Your task to perform on an android device: Search for flights from London to Paris Image 0: 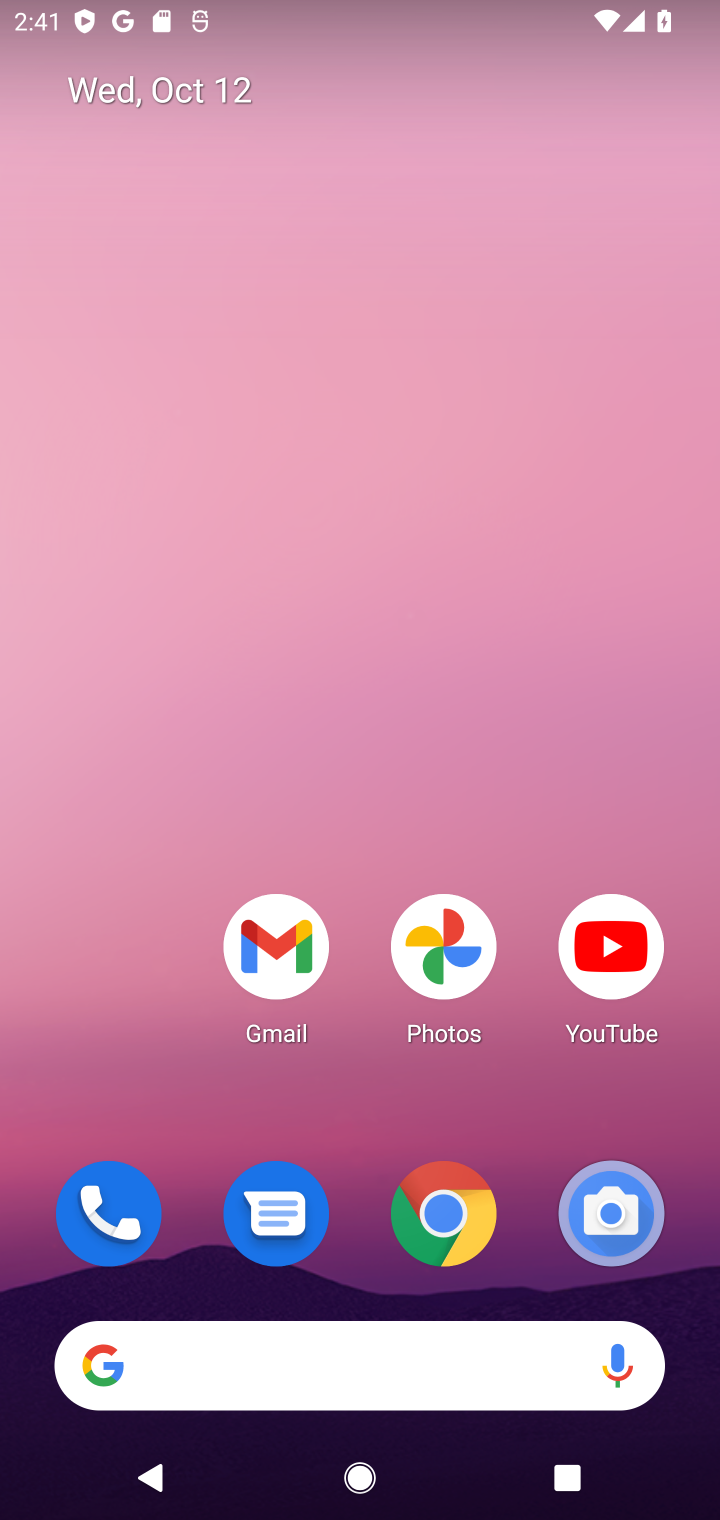
Step 0: click (365, 1367)
Your task to perform on an android device: Search for flights from London to Paris Image 1: 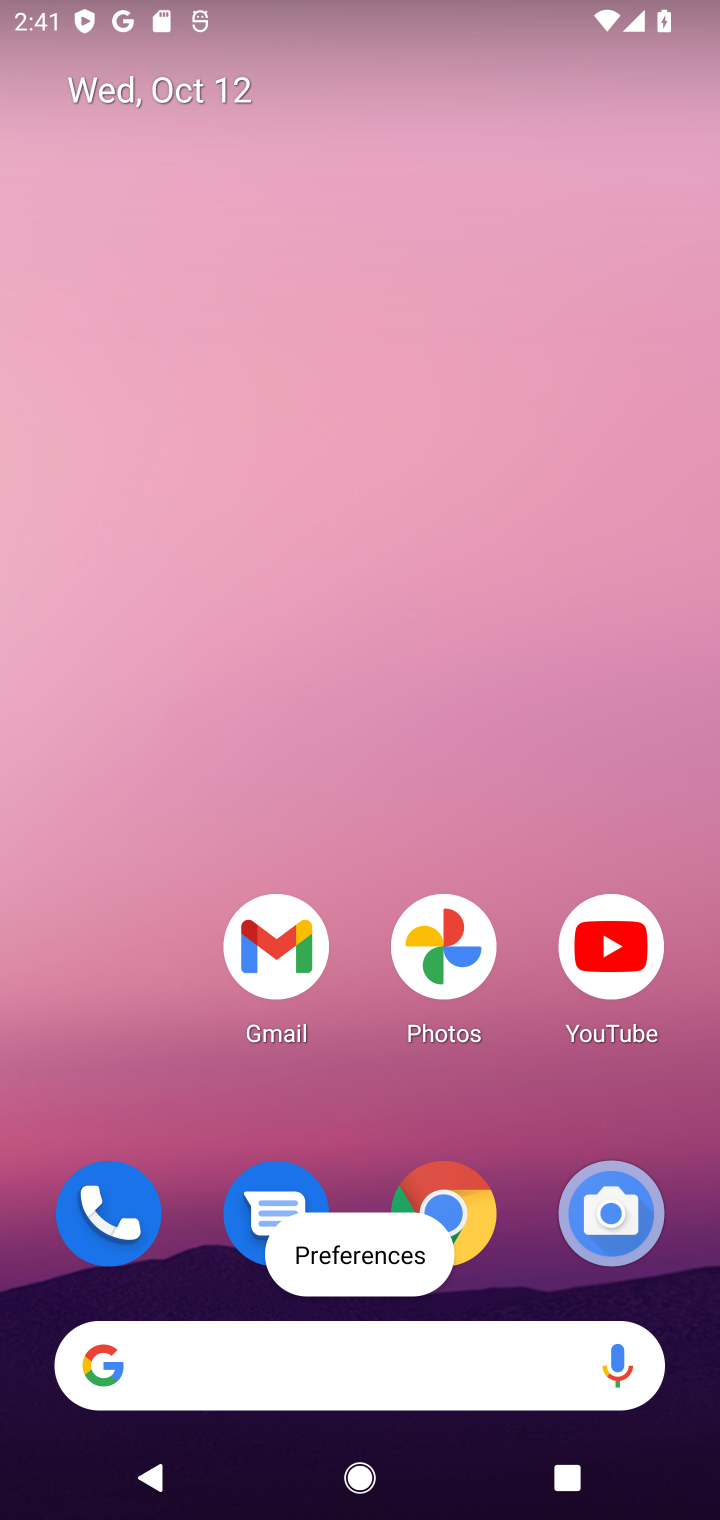
Step 1: click (288, 1340)
Your task to perform on an android device: Search for flights from London to Paris Image 2: 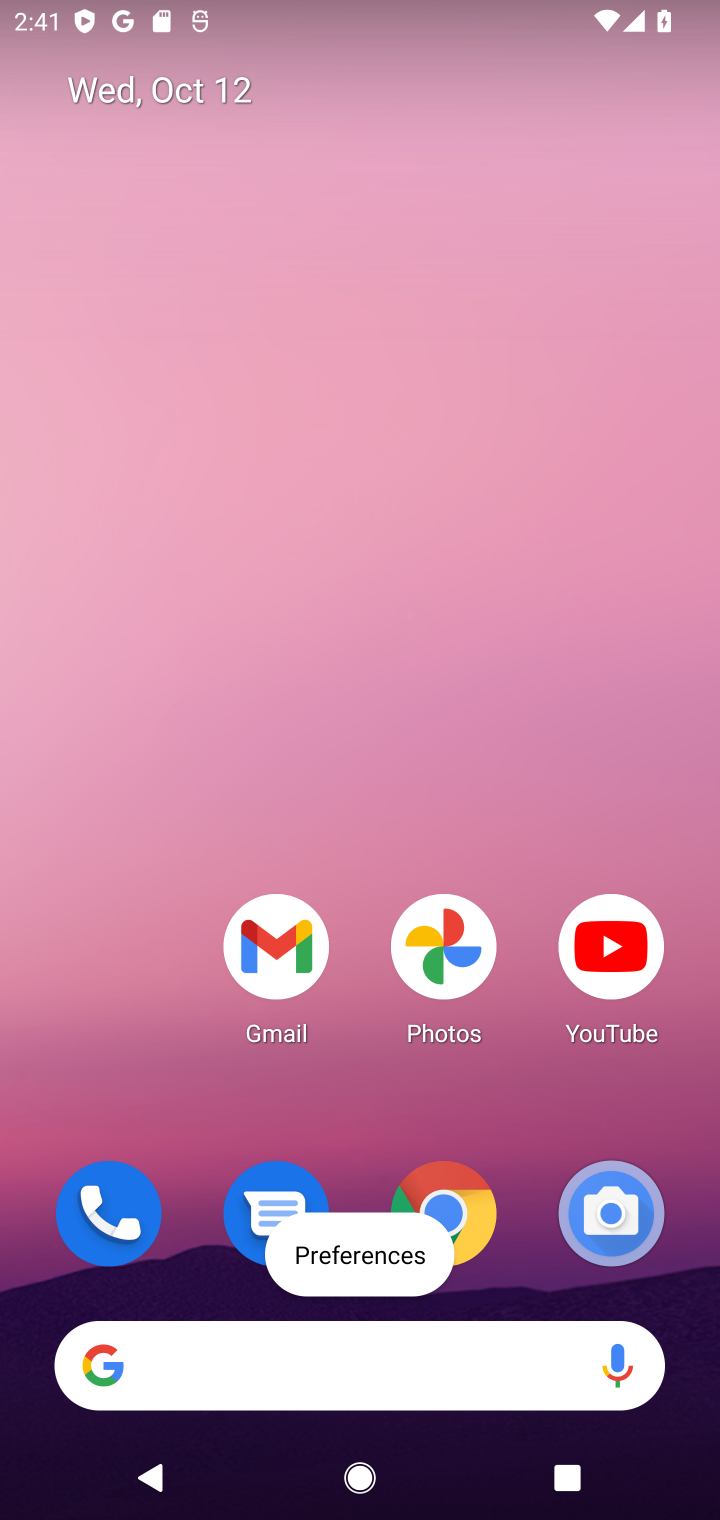
Step 2: type "flights from London to Paris"
Your task to perform on an android device: Search for flights from London to Paris Image 3: 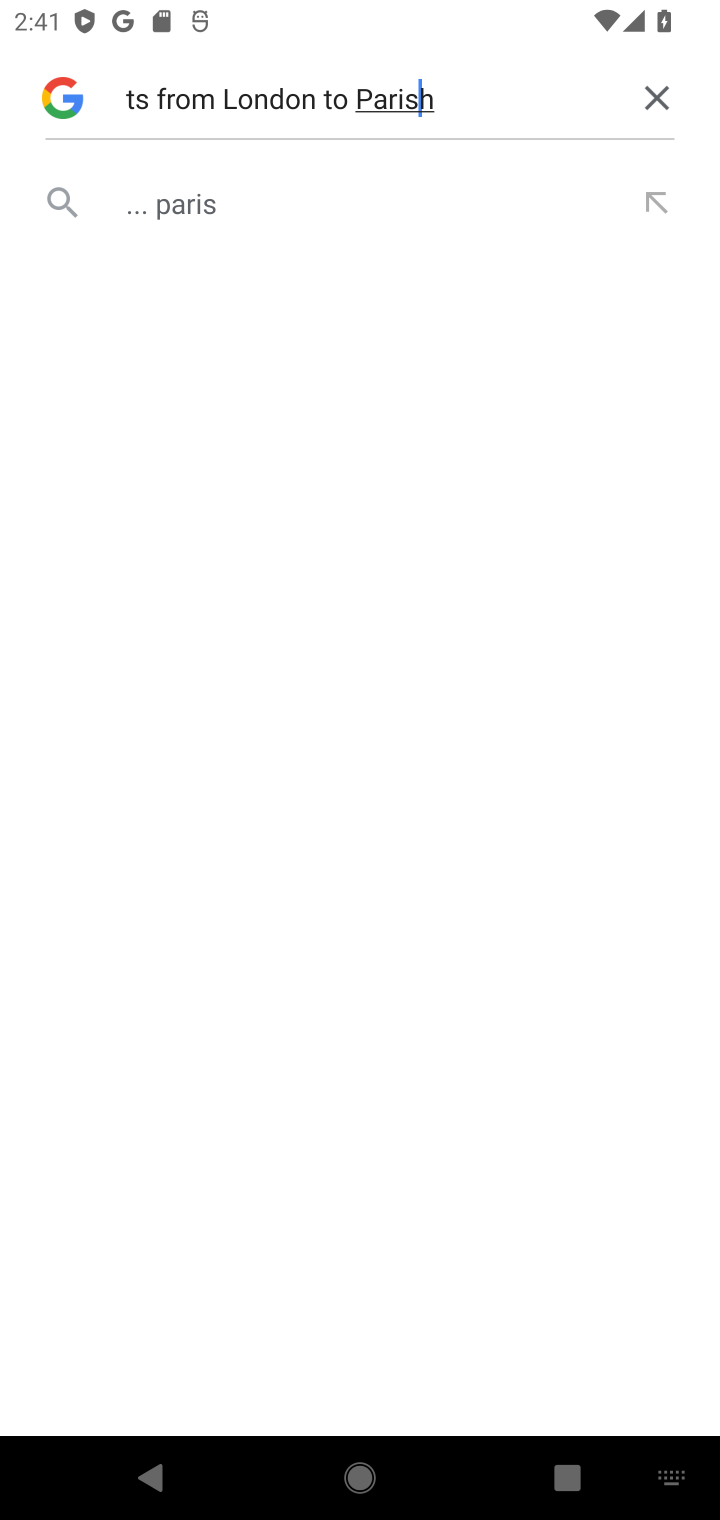
Step 3: click (466, 89)
Your task to perform on an android device: Search for flights from London to Paris Image 4: 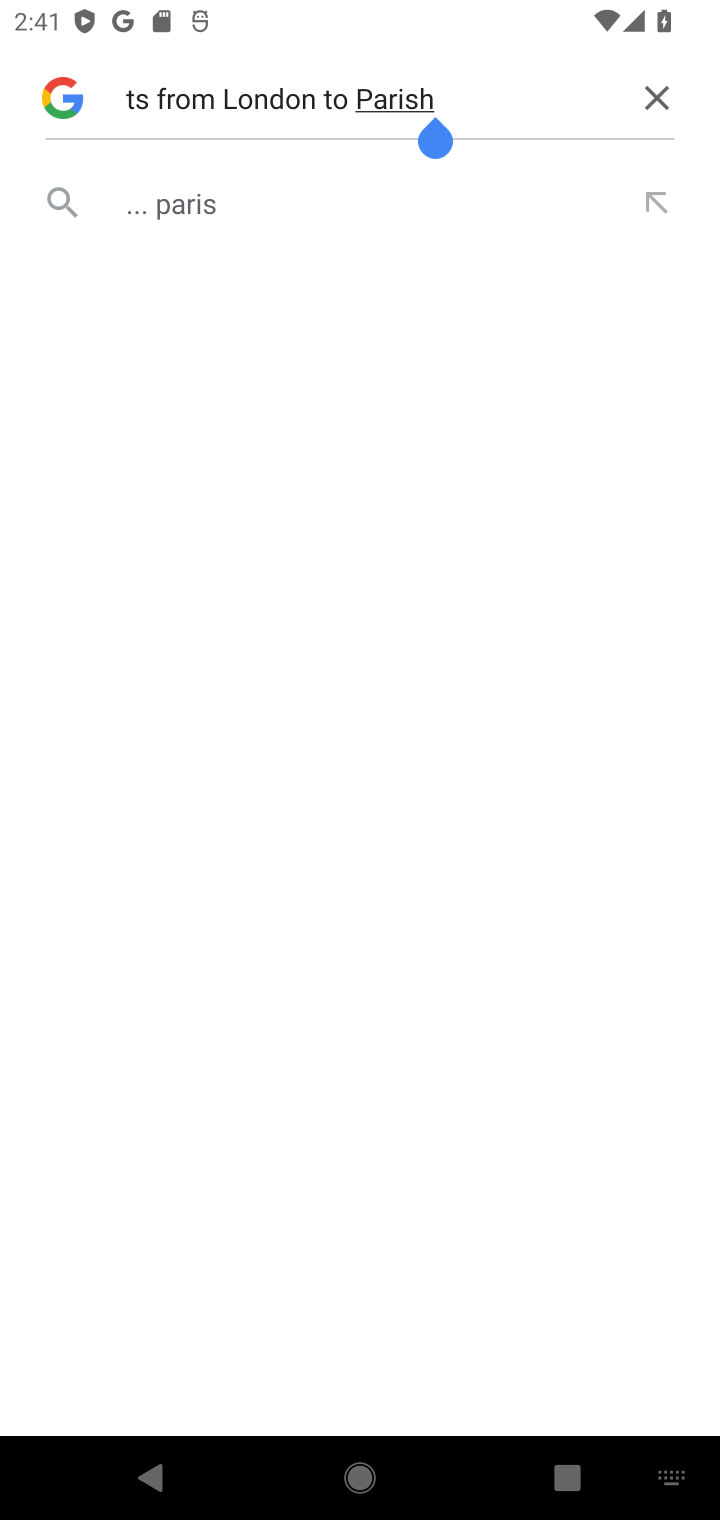
Step 4: click (257, 203)
Your task to perform on an android device: Search for flights from London to Paris Image 5: 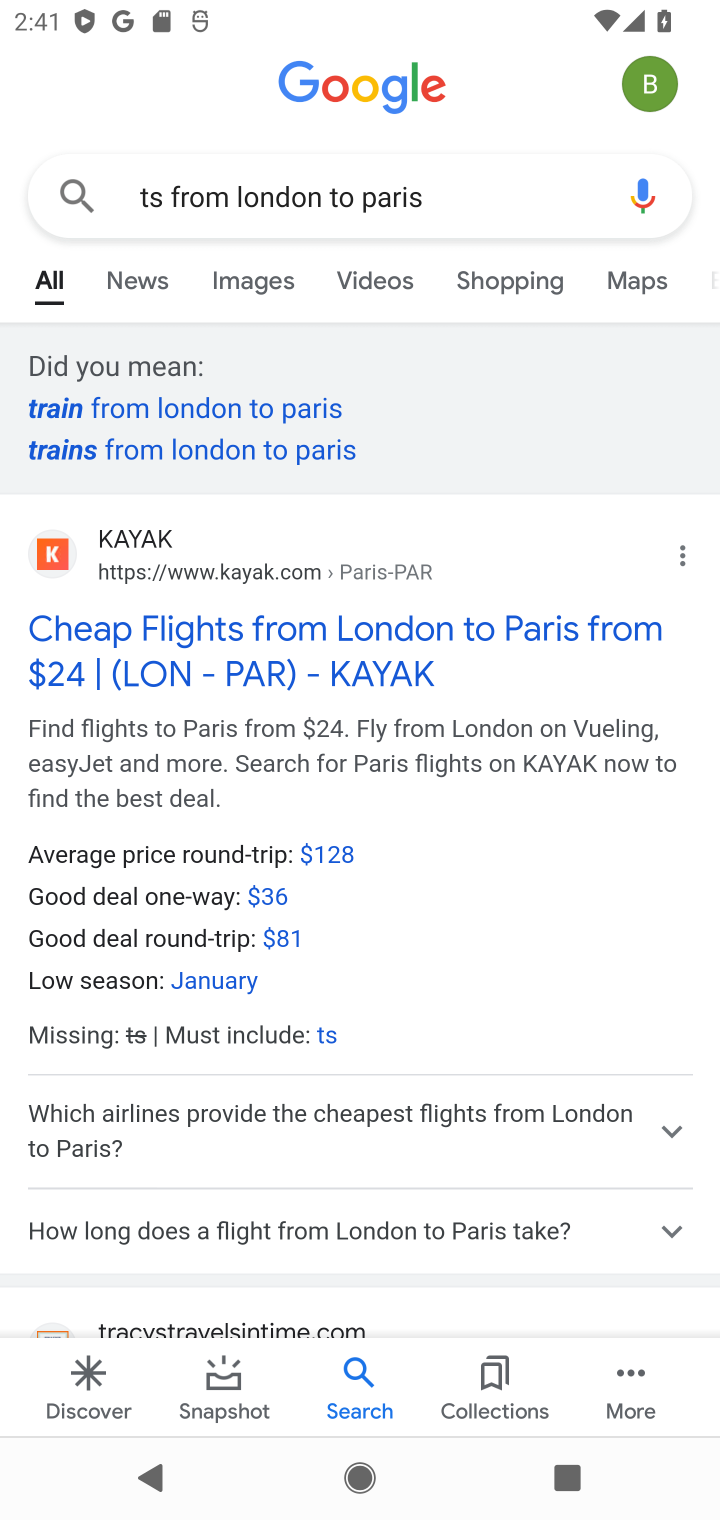
Step 5: click (272, 641)
Your task to perform on an android device: Search for flights from London to Paris Image 6: 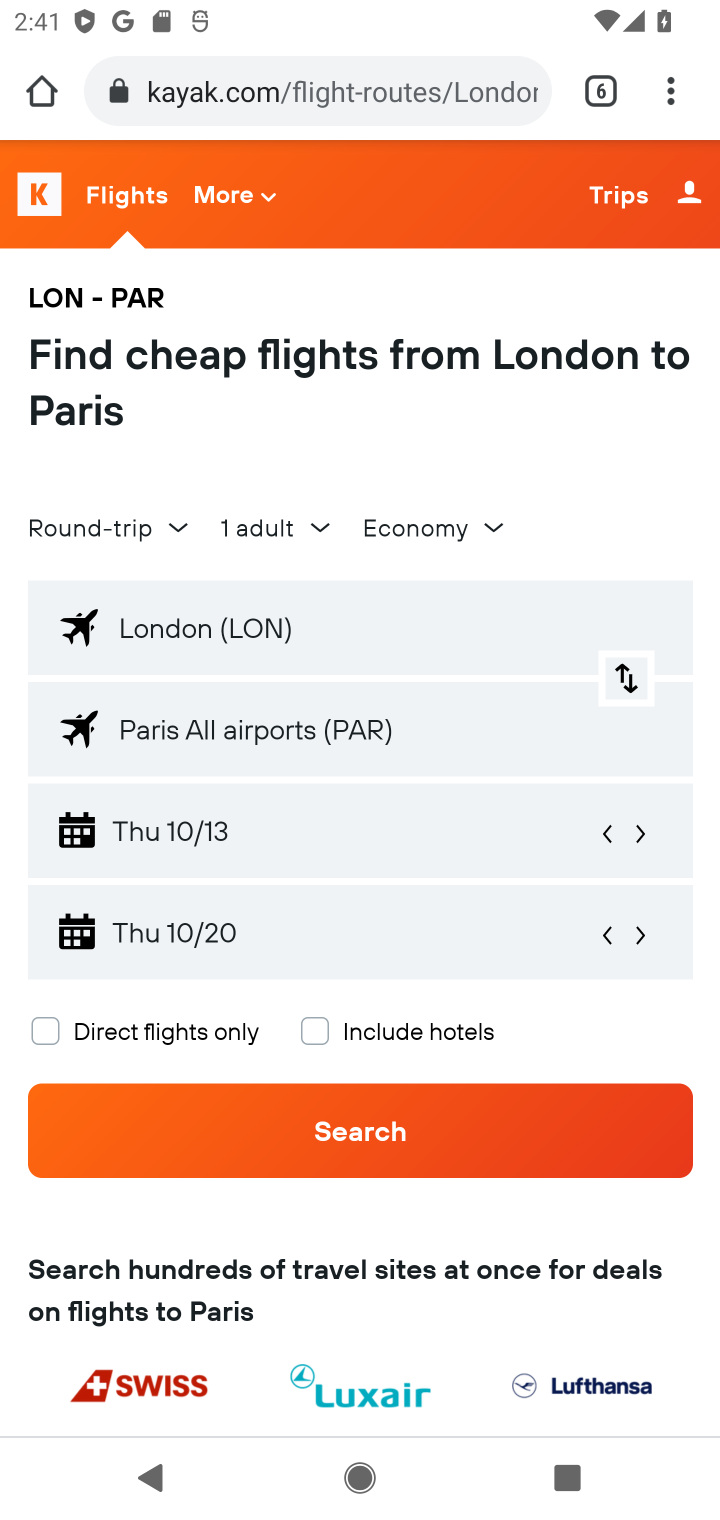
Step 6: task complete